Your task to perform on an android device: allow notifications from all sites in the chrome app Image 0: 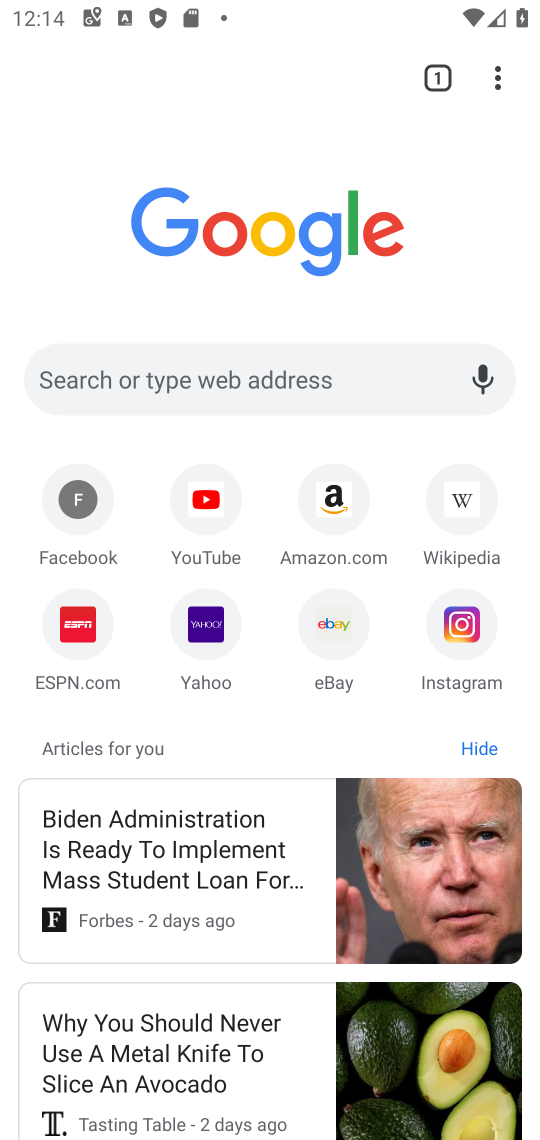
Step 0: click (499, 83)
Your task to perform on an android device: allow notifications from all sites in the chrome app Image 1: 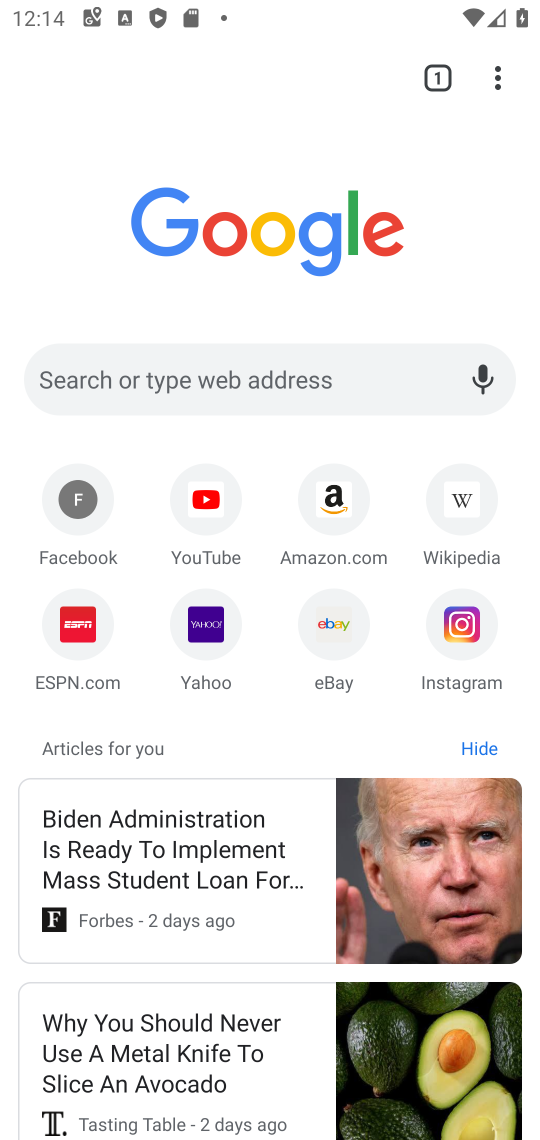
Step 1: click (506, 73)
Your task to perform on an android device: allow notifications from all sites in the chrome app Image 2: 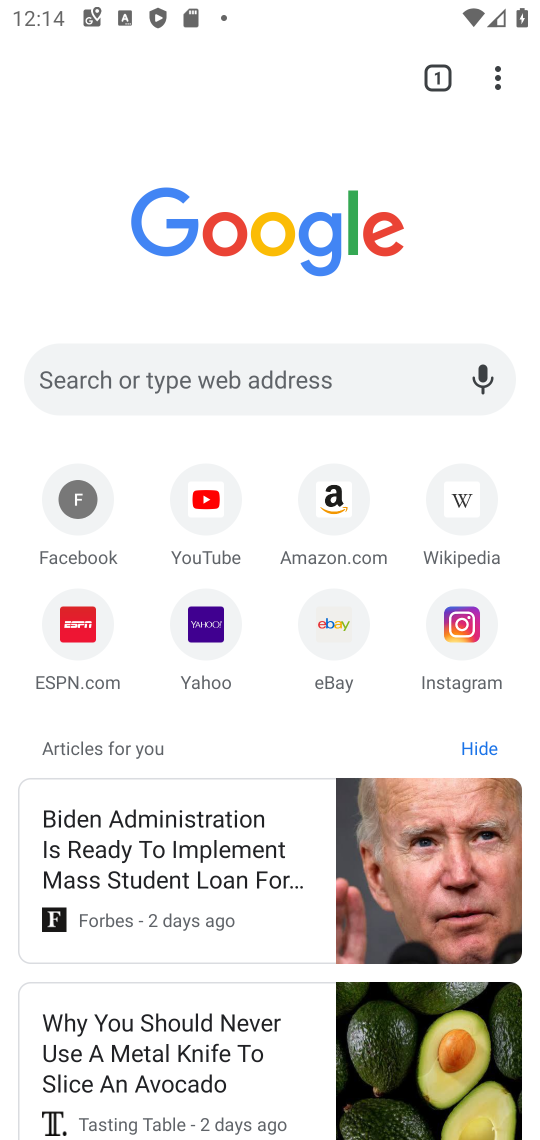
Step 2: click (506, 73)
Your task to perform on an android device: allow notifications from all sites in the chrome app Image 3: 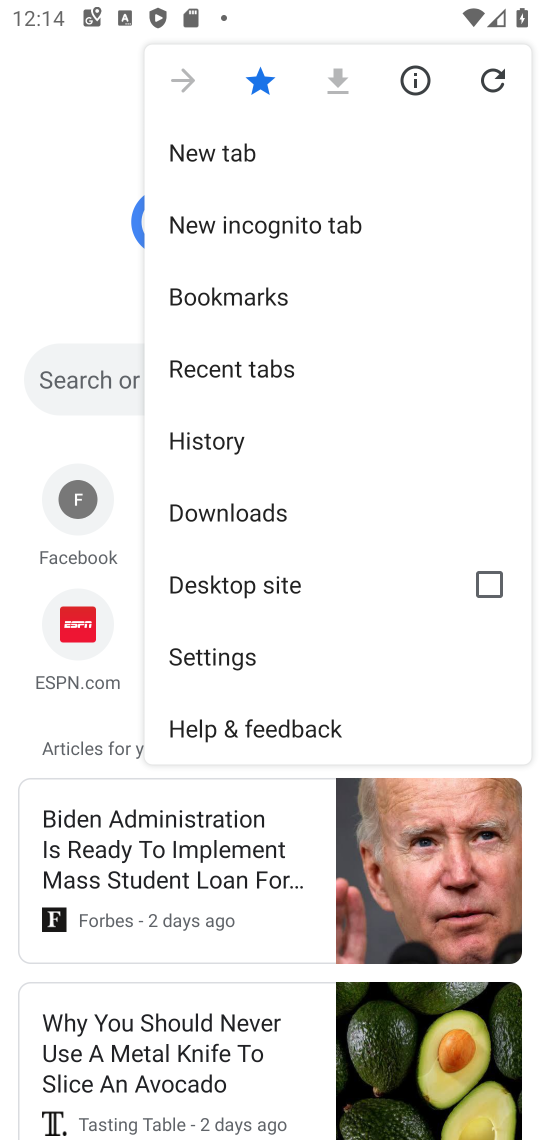
Step 3: click (185, 656)
Your task to perform on an android device: allow notifications from all sites in the chrome app Image 4: 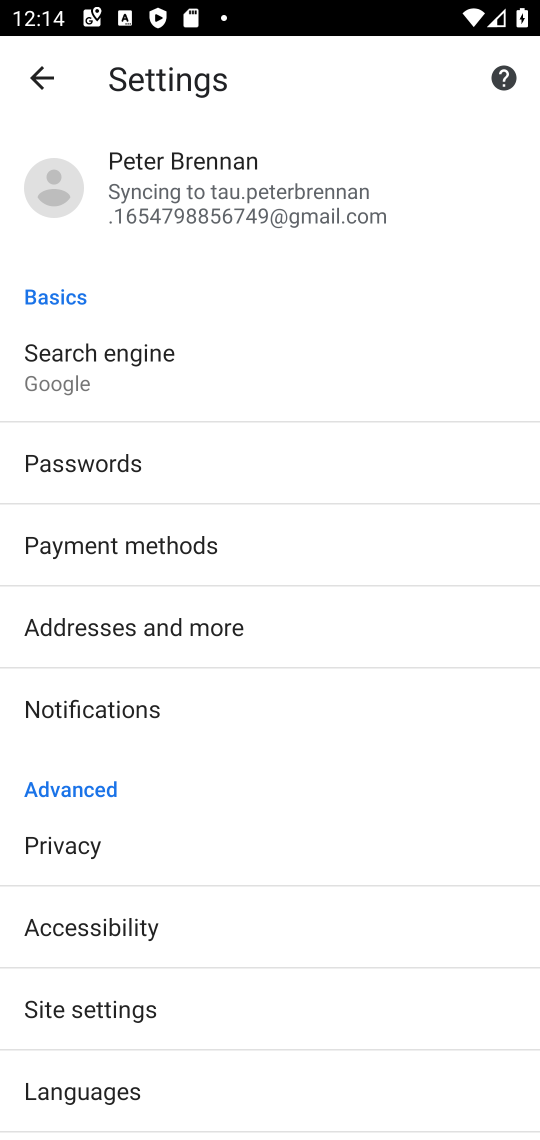
Step 4: click (264, 701)
Your task to perform on an android device: allow notifications from all sites in the chrome app Image 5: 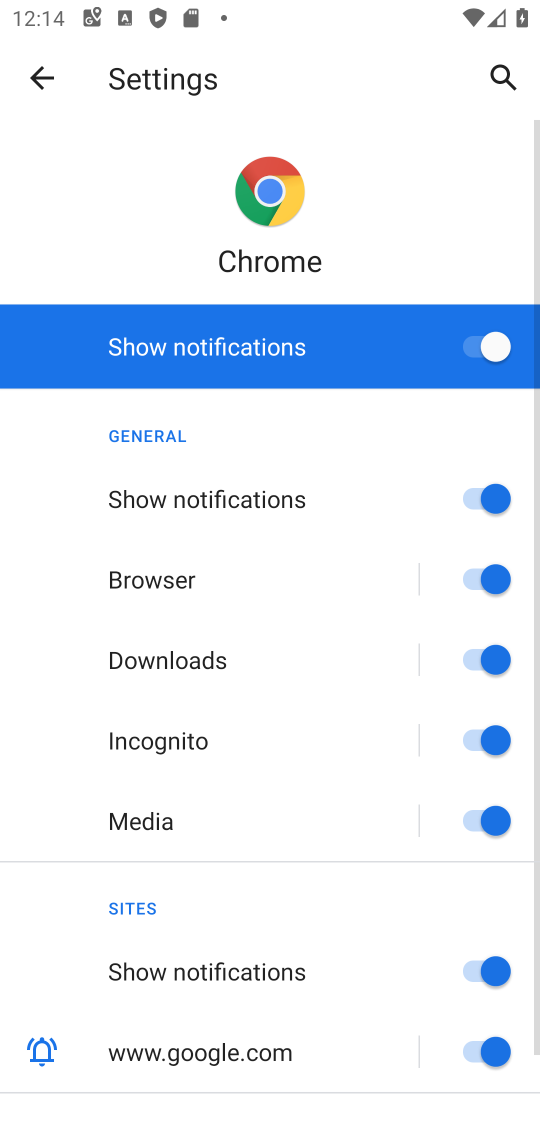
Step 5: task complete